Your task to perform on an android device: Turn on the flashlight Image 0: 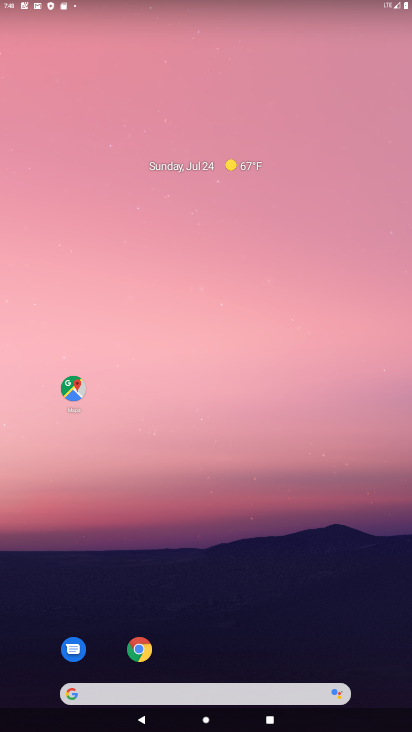
Step 0: drag from (230, 663) to (196, 214)
Your task to perform on an android device: Turn on the flashlight Image 1: 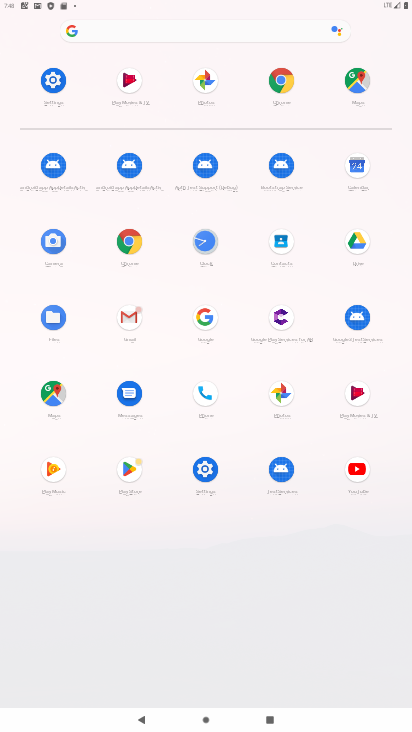
Step 1: click (197, 478)
Your task to perform on an android device: Turn on the flashlight Image 2: 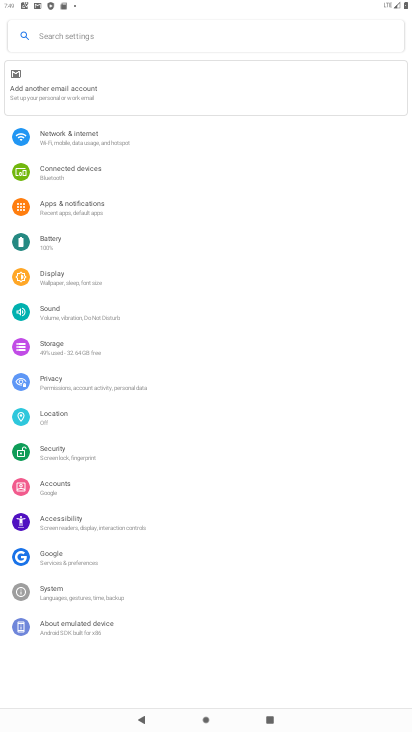
Step 2: task complete